Your task to perform on an android device: turn on javascript in the chrome app Image 0: 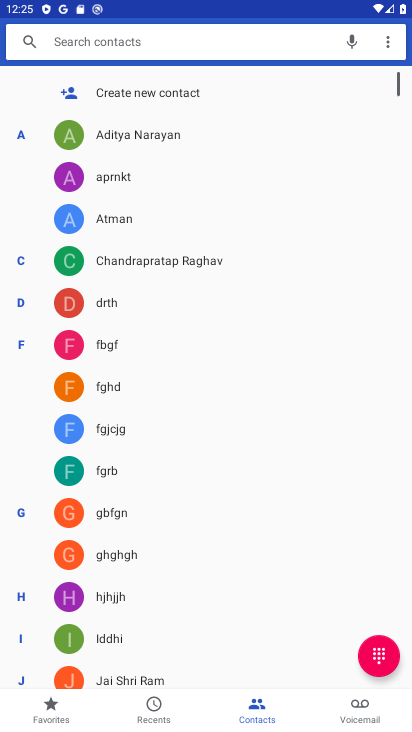
Step 0: drag from (131, 610) to (187, 217)
Your task to perform on an android device: turn on javascript in the chrome app Image 1: 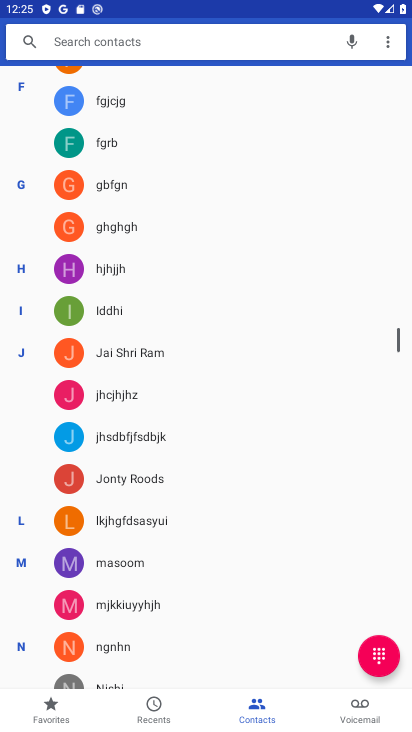
Step 1: drag from (223, 598) to (222, 265)
Your task to perform on an android device: turn on javascript in the chrome app Image 2: 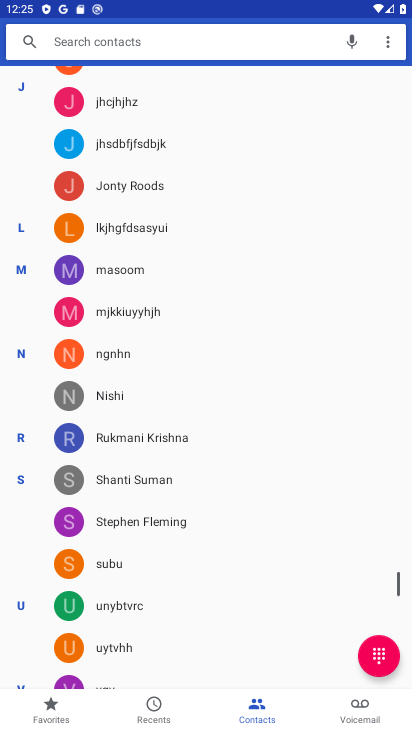
Step 2: press home button
Your task to perform on an android device: turn on javascript in the chrome app Image 3: 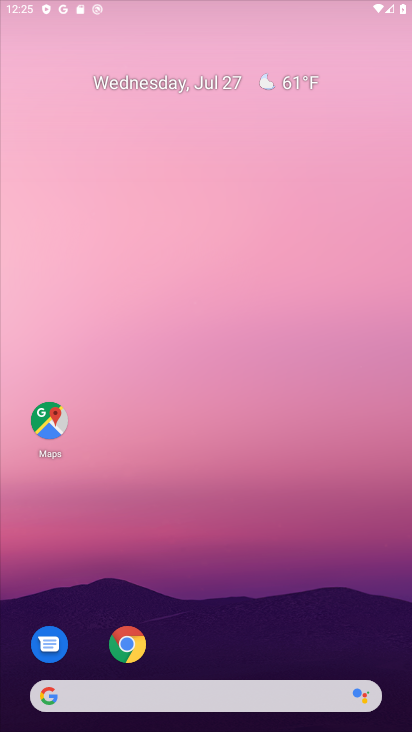
Step 3: drag from (191, 688) to (244, 157)
Your task to perform on an android device: turn on javascript in the chrome app Image 4: 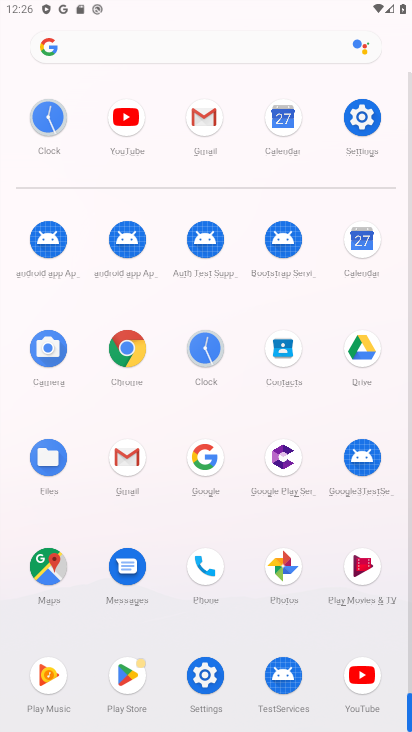
Step 4: click (137, 343)
Your task to perform on an android device: turn on javascript in the chrome app Image 5: 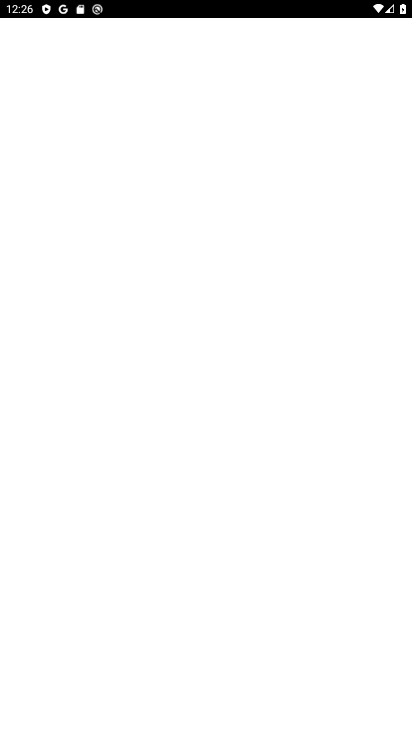
Step 5: click (126, 346)
Your task to perform on an android device: turn on javascript in the chrome app Image 6: 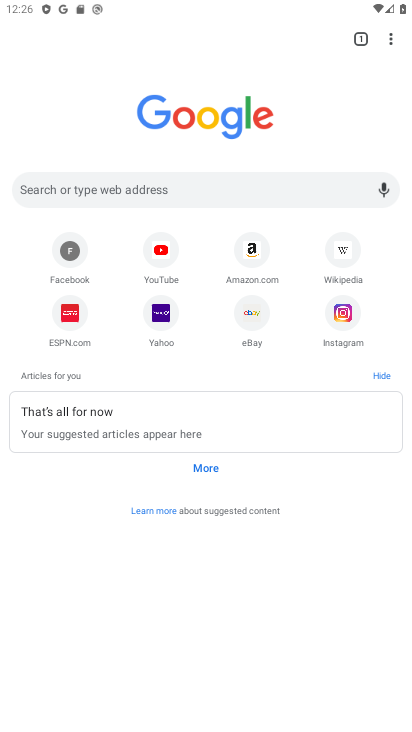
Step 6: click (128, 355)
Your task to perform on an android device: turn on javascript in the chrome app Image 7: 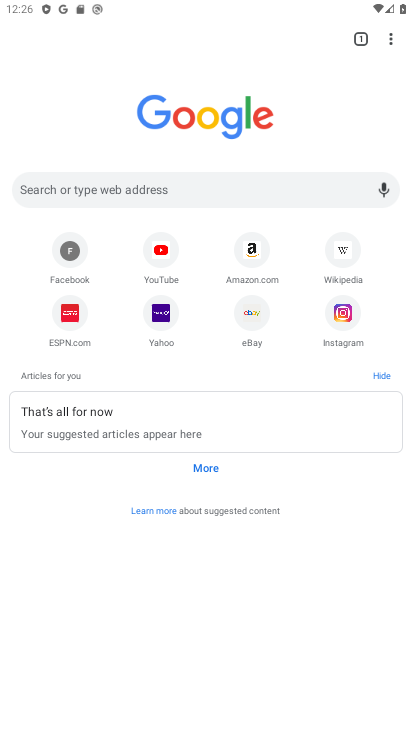
Step 7: drag from (391, 36) to (277, 375)
Your task to perform on an android device: turn on javascript in the chrome app Image 8: 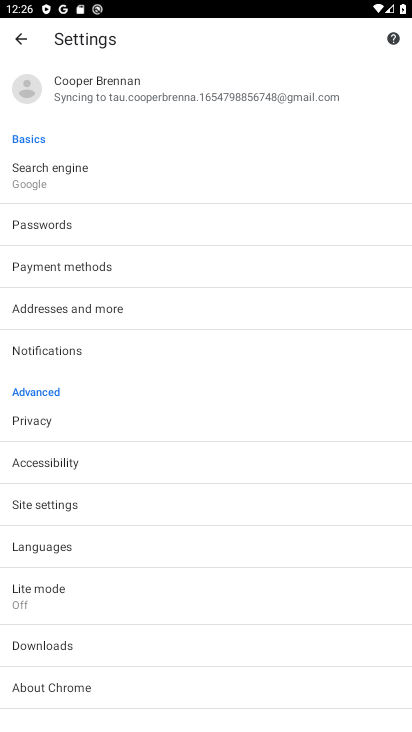
Step 8: click (94, 497)
Your task to perform on an android device: turn on javascript in the chrome app Image 9: 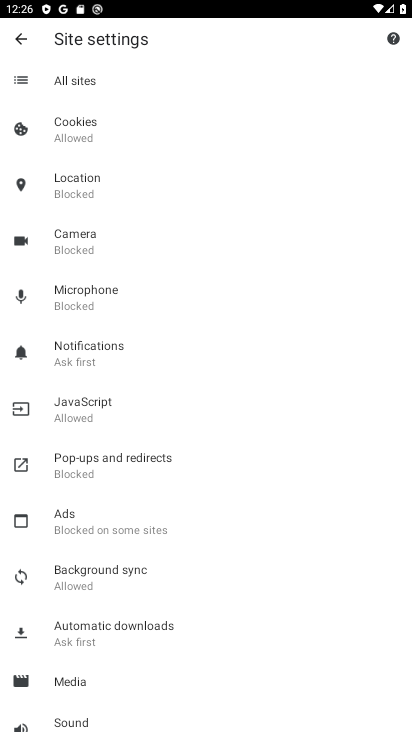
Step 9: click (126, 404)
Your task to perform on an android device: turn on javascript in the chrome app Image 10: 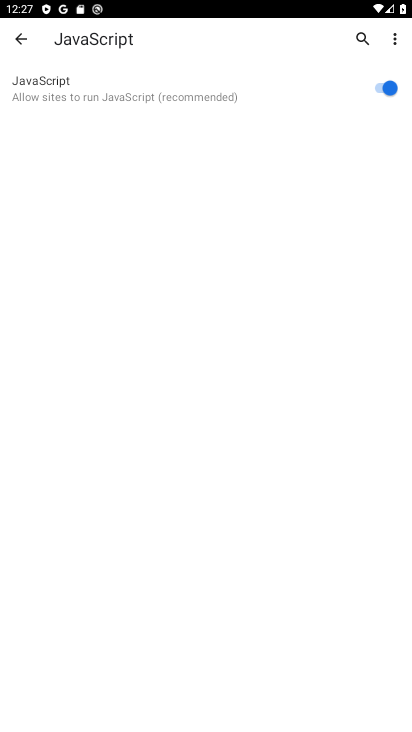
Step 10: task complete